Your task to perform on an android device: toggle notification dots Image 0: 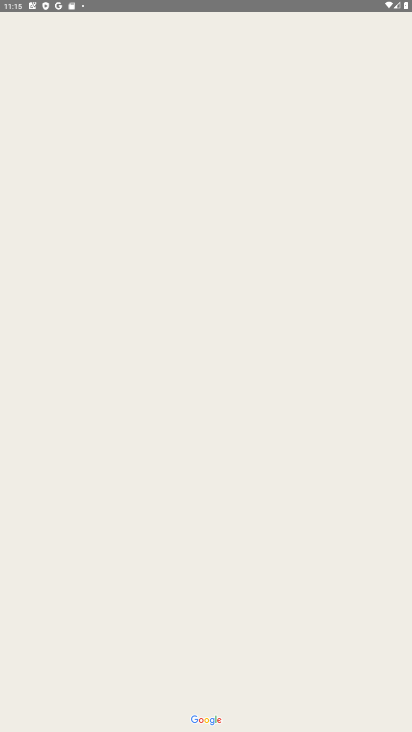
Step 0: press home button
Your task to perform on an android device: toggle notification dots Image 1: 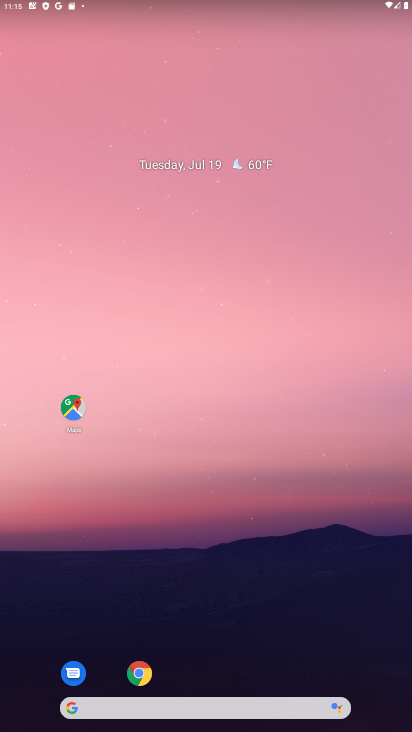
Step 1: drag from (349, 640) to (330, 205)
Your task to perform on an android device: toggle notification dots Image 2: 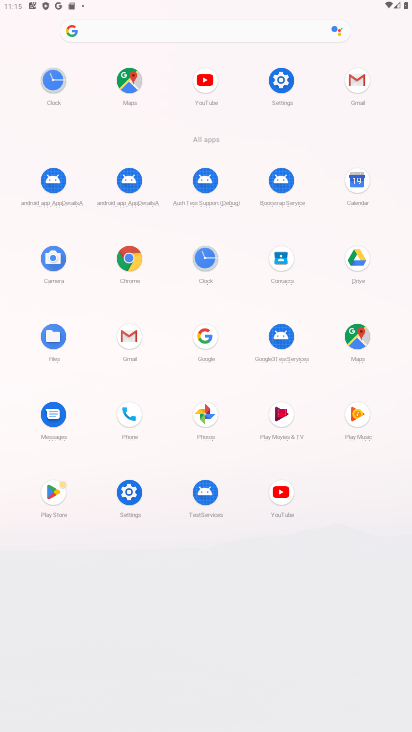
Step 2: click (128, 494)
Your task to perform on an android device: toggle notification dots Image 3: 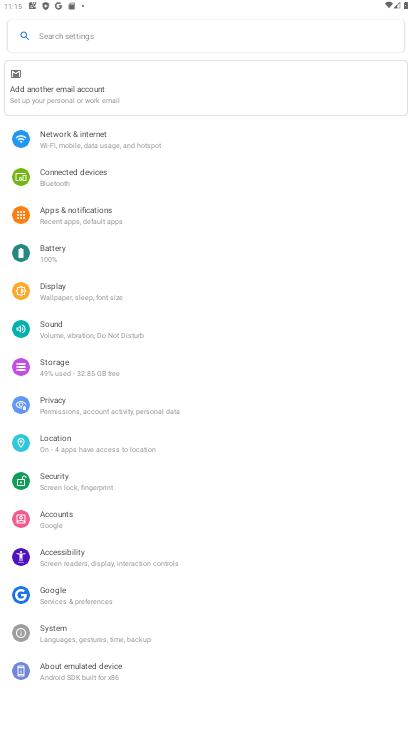
Step 3: click (74, 214)
Your task to perform on an android device: toggle notification dots Image 4: 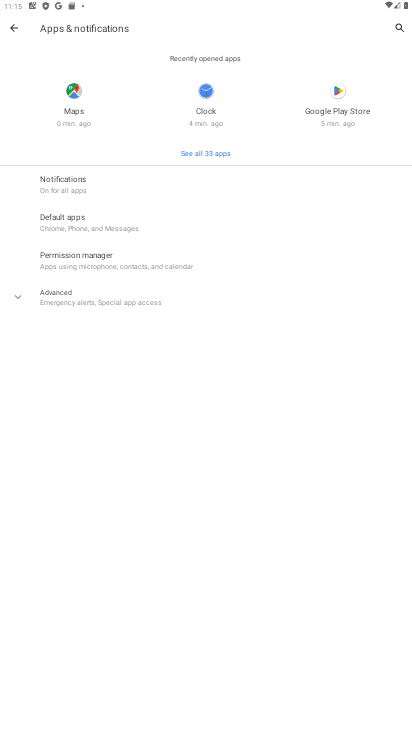
Step 4: click (59, 178)
Your task to perform on an android device: toggle notification dots Image 5: 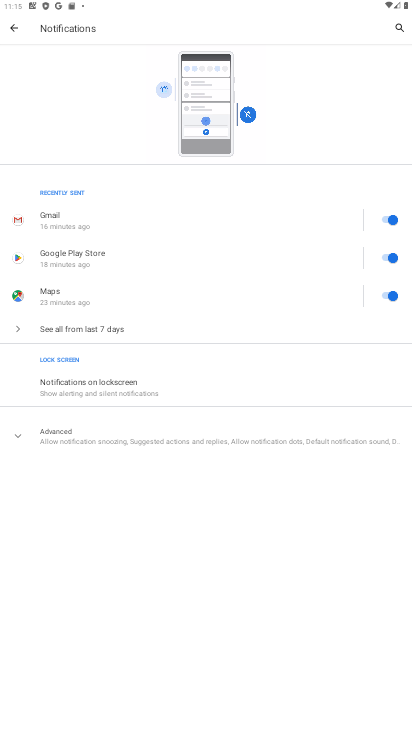
Step 5: click (15, 434)
Your task to perform on an android device: toggle notification dots Image 6: 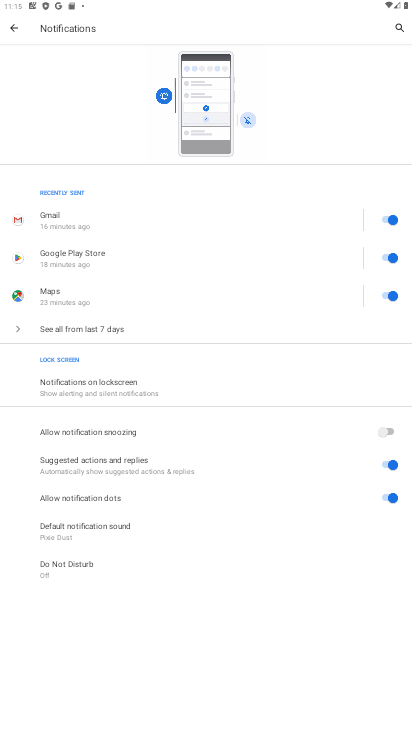
Step 6: click (384, 497)
Your task to perform on an android device: toggle notification dots Image 7: 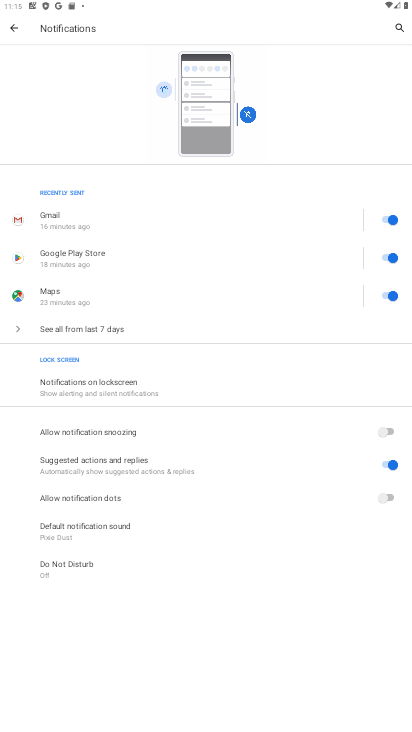
Step 7: task complete